Your task to perform on an android device: Go to wifi settings Image 0: 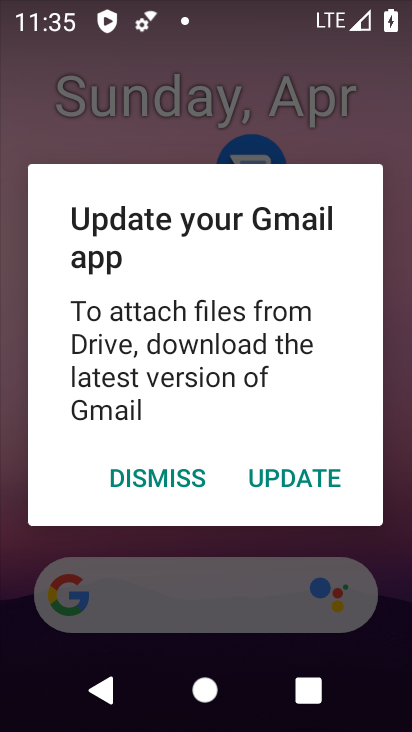
Step 0: press home button
Your task to perform on an android device: Go to wifi settings Image 1: 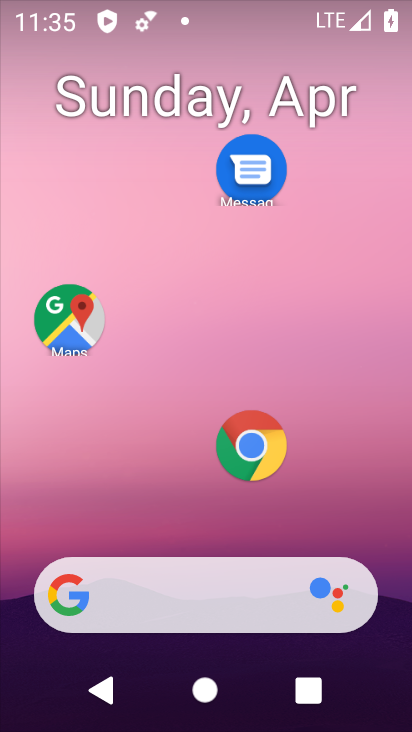
Step 1: drag from (197, 493) to (315, 43)
Your task to perform on an android device: Go to wifi settings Image 2: 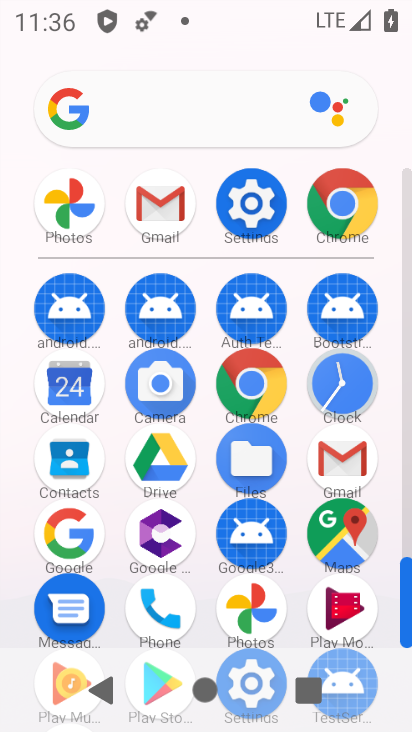
Step 2: click (265, 206)
Your task to perform on an android device: Go to wifi settings Image 3: 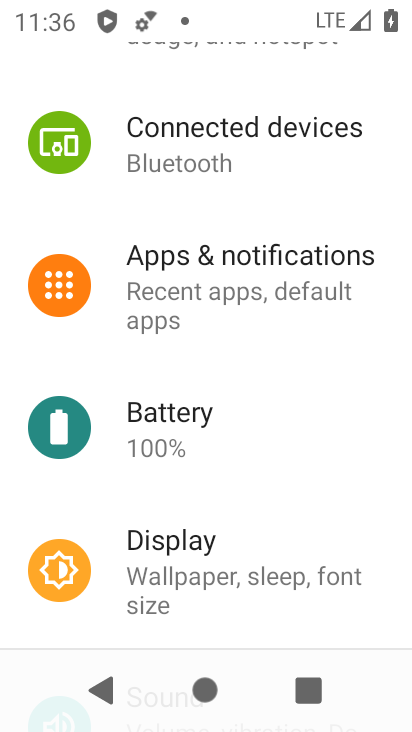
Step 3: drag from (325, 193) to (209, 625)
Your task to perform on an android device: Go to wifi settings Image 4: 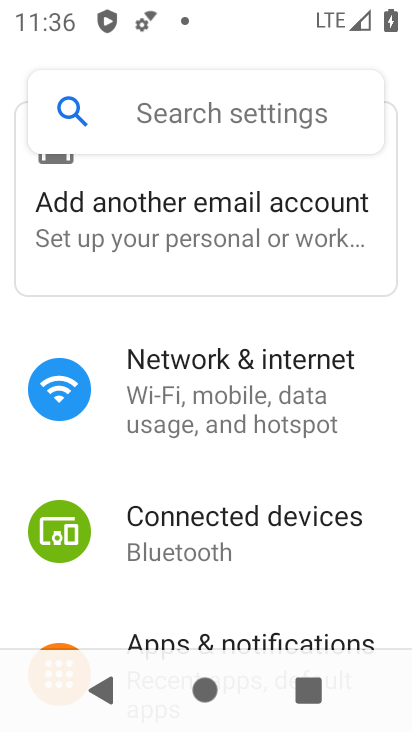
Step 4: click (217, 375)
Your task to perform on an android device: Go to wifi settings Image 5: 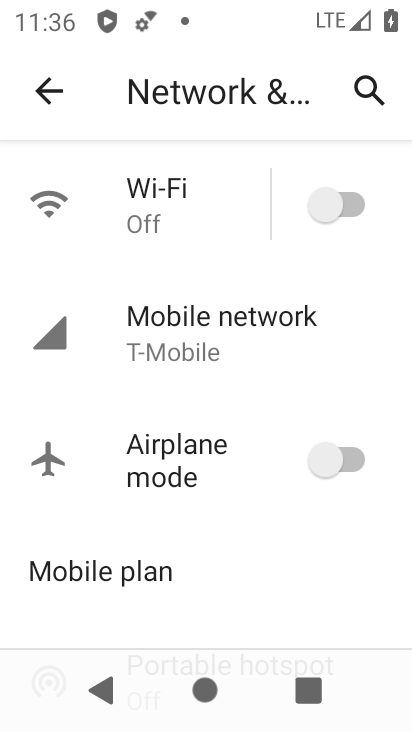
Step 5: click (184, 200)
Your task to perform on an android device: Go to wifi settings Image 6: 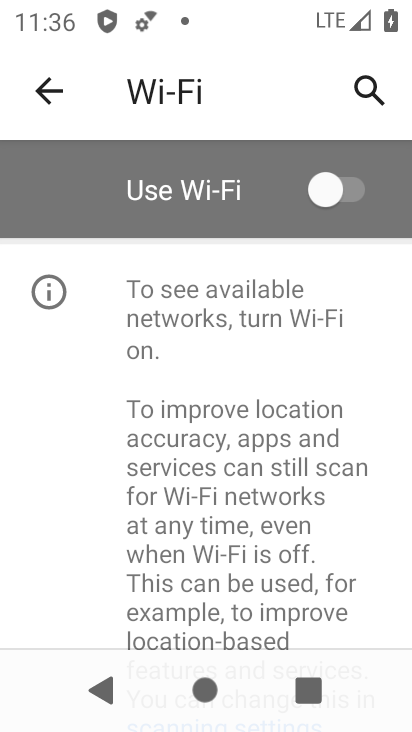
Step 6: task complete